Your task to perform on an android device: What's the weather going to be this weekend? Image 0: 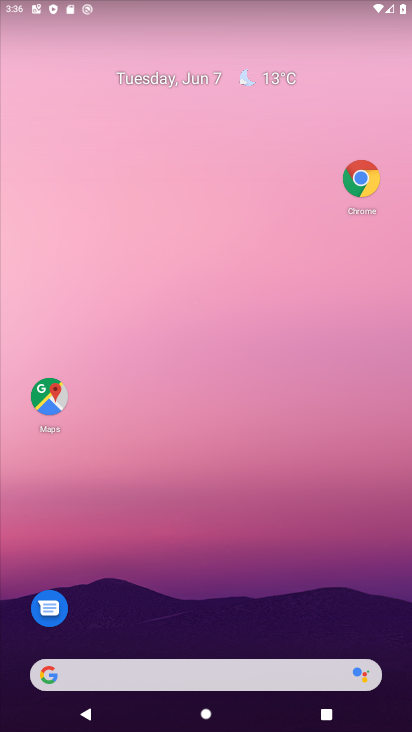
Step 0: click (276, 85)
Your task to perform on an android device: What's the weather going to be this weekend? Image 1: 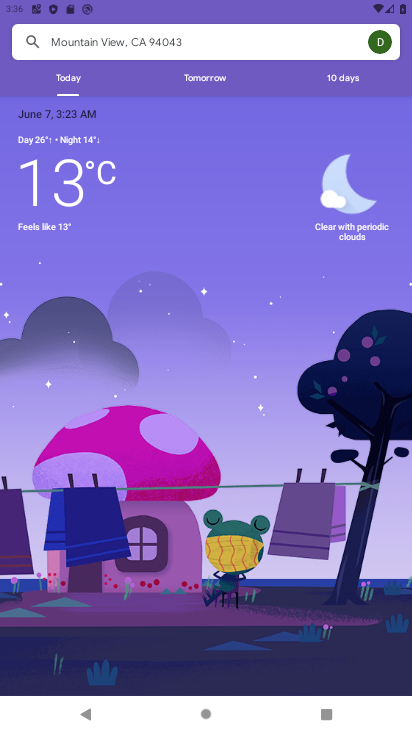
Step 1: click (342, 81)
Your task to perform on an android device: What's the weather going to be this weekend? Image 2: 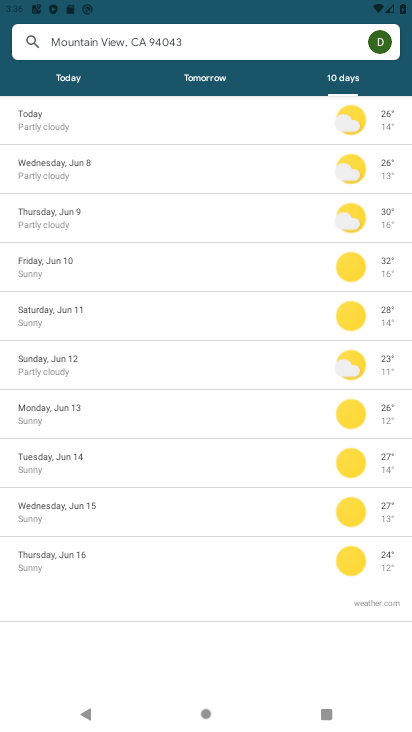
Step 2: task complete